Your task to perform on an android device: change keyboard looks Image 0: 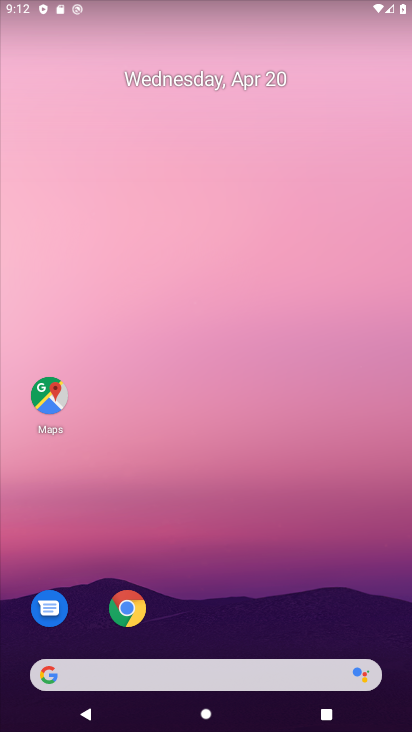
Step 0: drag from (217, 641) to (230, 37)
Your task to perform on an android device: change keyboard looks Image 1: 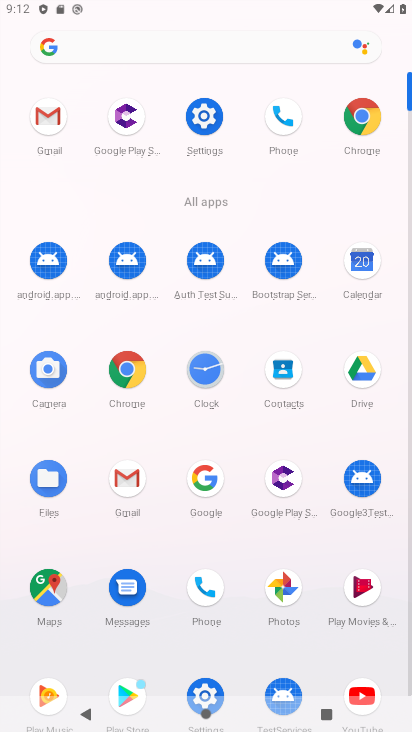
Step 1: click (211, 119)
Your task to perform on an android device: change keyboard looks Image 2: 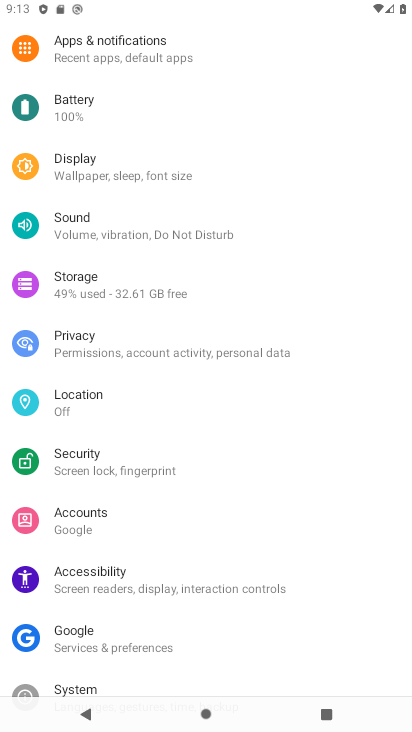
Step 2: drag from (68, 592) to (148, 257)
Your task to perform on an android device: change keyboard looks Image 3: 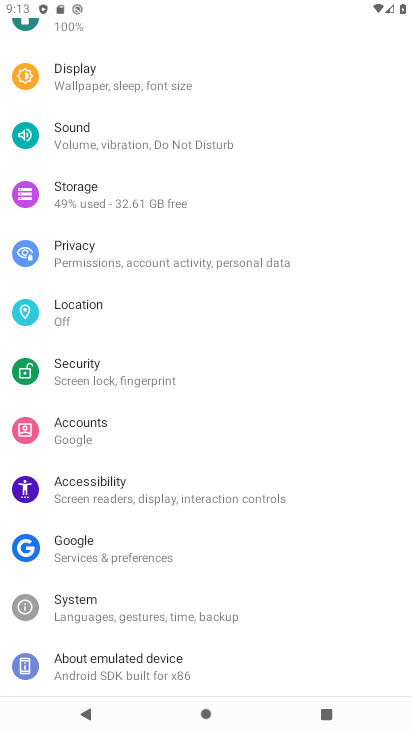
Step 3: click (104, 614)
Your task to perform on an android device: change keyboard looks Image 4: 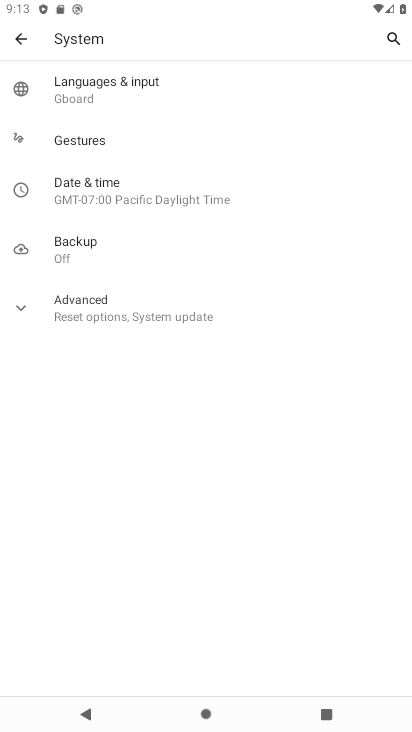
Step 4: click (117, 86)
Your task to perform on an android device: change keyboard looks Image 5: 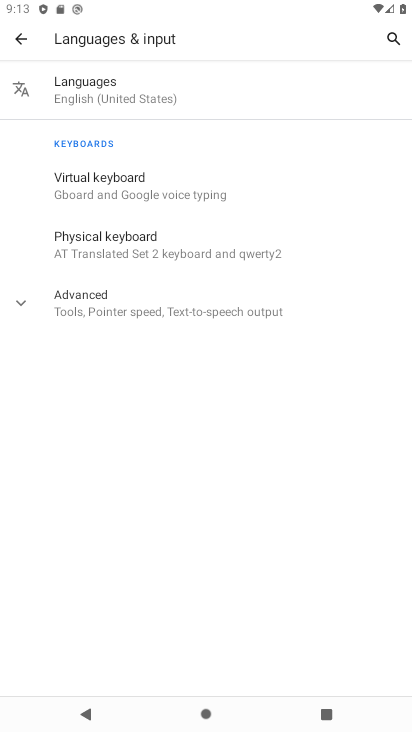
Step 5: click (115, 188)
Your task to perform on an android device: change keyboard looks Image 6: 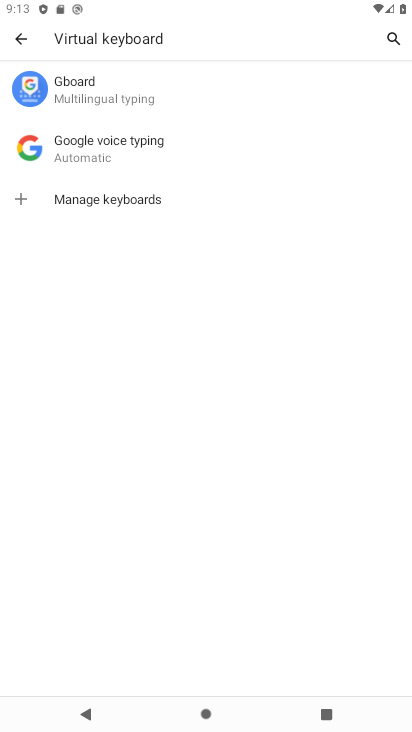
Step 6: click (119, 92)
Your task to perform on an android device: change keyboard looks Image 7: 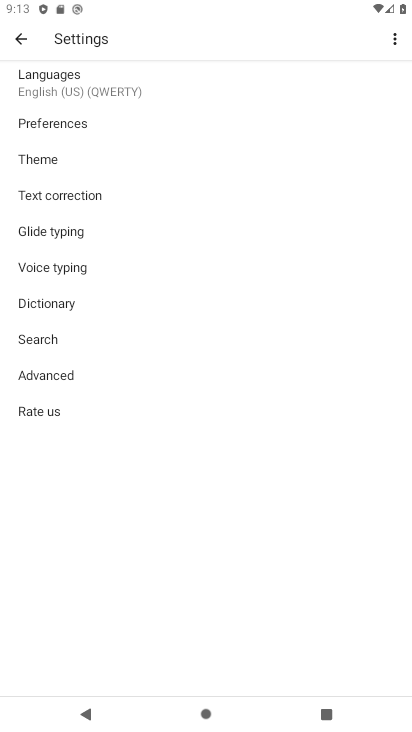
Step 7: click (41, 159)
Your task to perform on an android device: change keyboard looks Image 8: 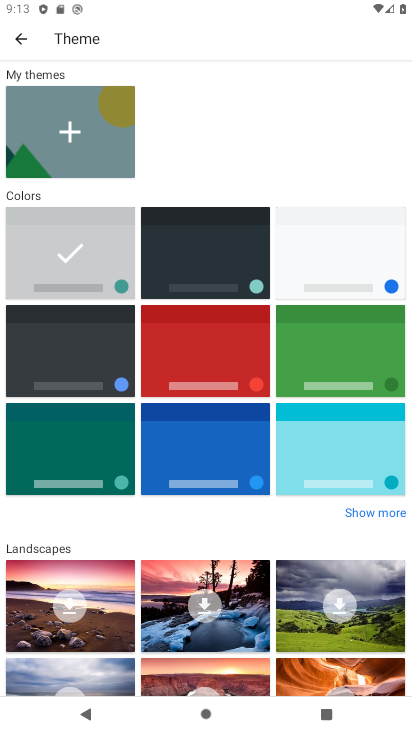
Step 8: click (349, 266)
Your task to perform on an android device: change keyboard looks Image 9: 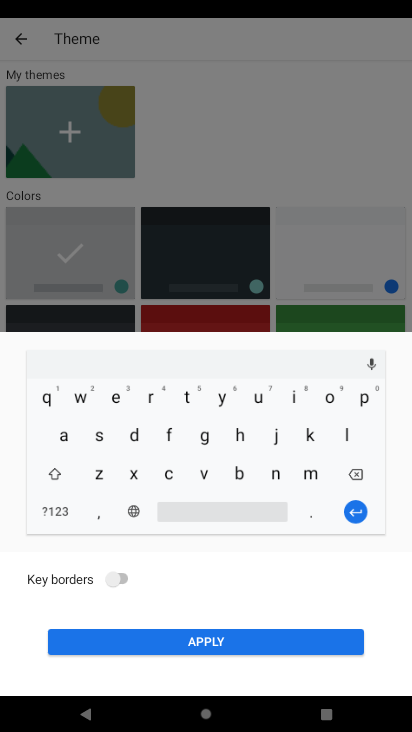
Step 9: click (274, 632)
Your task to perform on an android device: change keyboard looks Image 10: 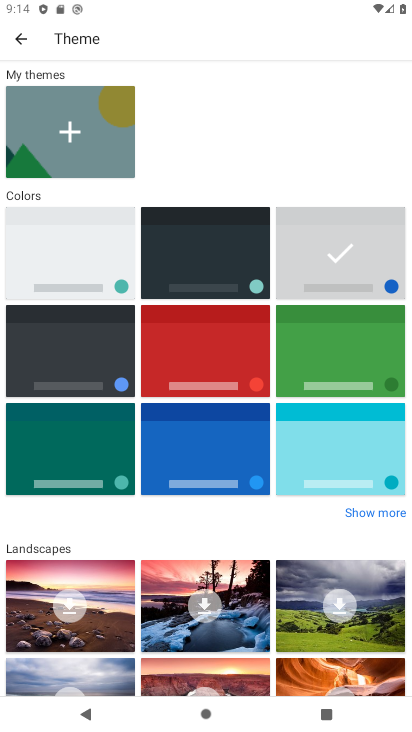
Step 10: task complete